Your task to perform on an android device: see sites visited before in the chrome app Image 0: 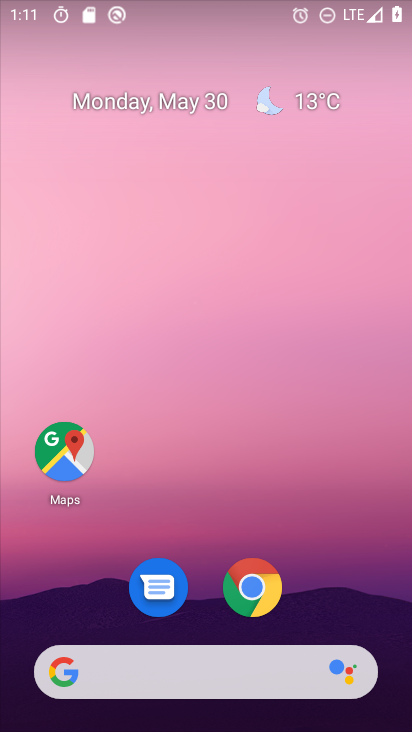
Step 0: drag from (350, 581) to (273, 109)
Your task to perform on an android device: see sites visited before in the chrome app Image 1: 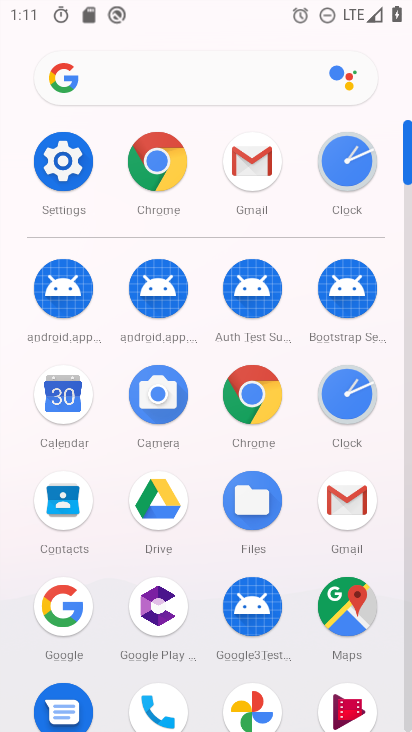
Step 1: click (251, 382)
Your task to perform on an android device: see sites visited before in the chrome app Image 2: 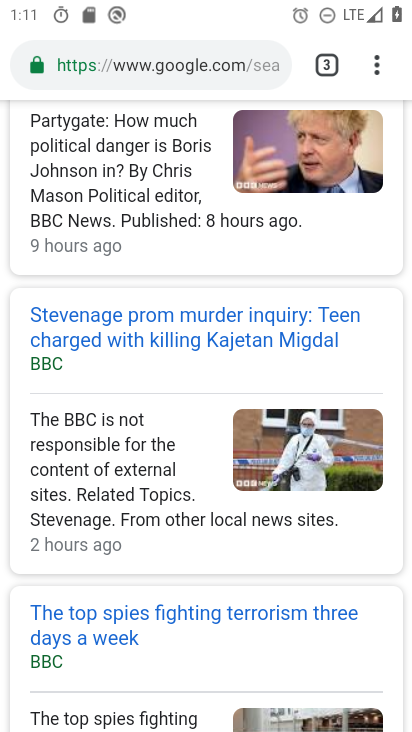
Step 2: task complete